Your task to perform on an android device: Search for Italian restaurants on Maps Image 0: 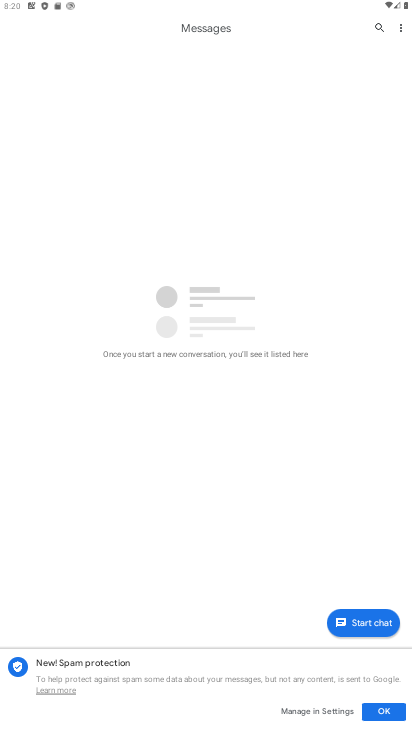
Step 0: press home button
Your task to perform on an android device: Search for Italian restaurants on Maps Image 1: 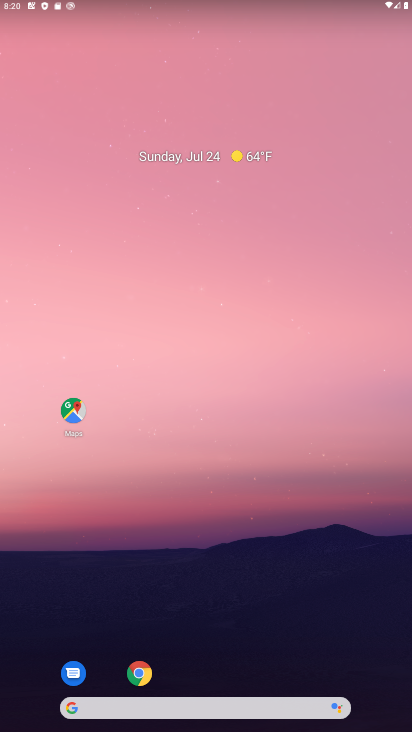
Step 1: click (74, 408)
Your task to perform on an android device: Search for Italian restaurants on Maps Image 2: 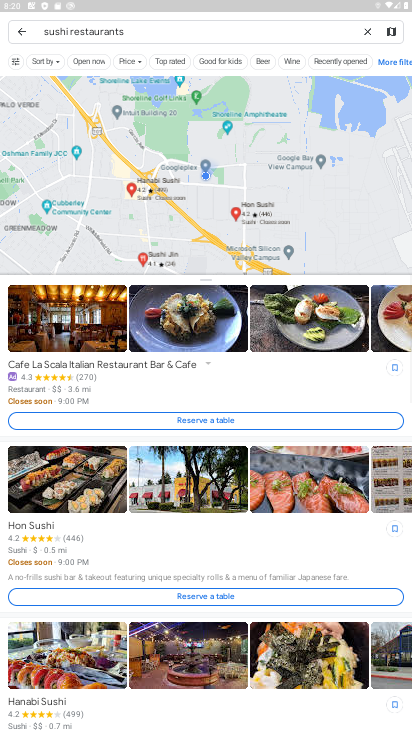
Step 2: click (372, 28)
Your task to perform on an android device: Search for Italian restaurants on Maps Image 3: 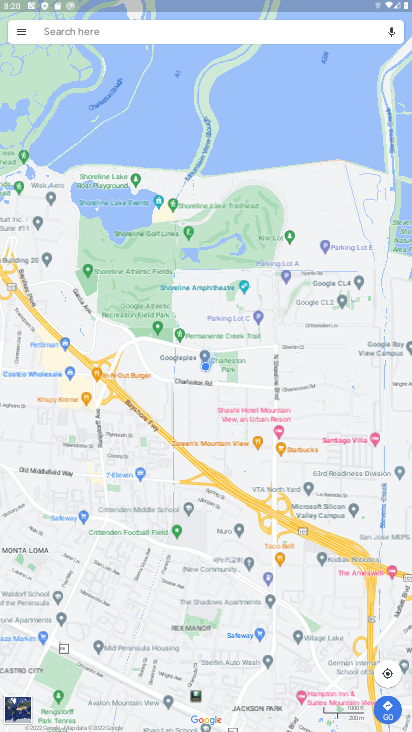
Step 3: click (199, 36)
Your task to perform on an android device: Search for Italian restaurants on Maps Image 4: 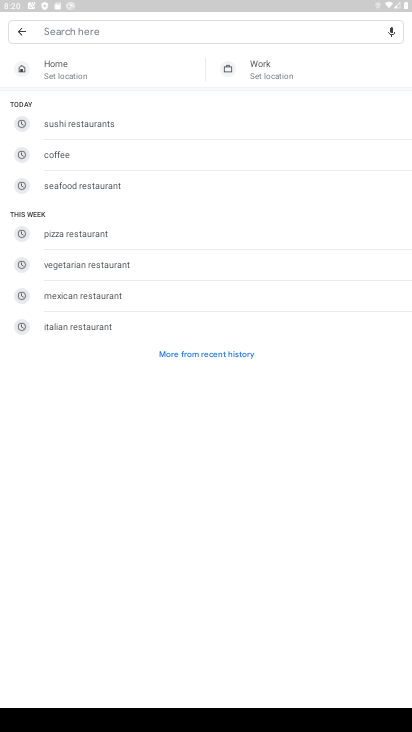
Step 4: click (118, 324)
Your task to perform on an android device: Search for Italian restaurants on Maps Image 5: 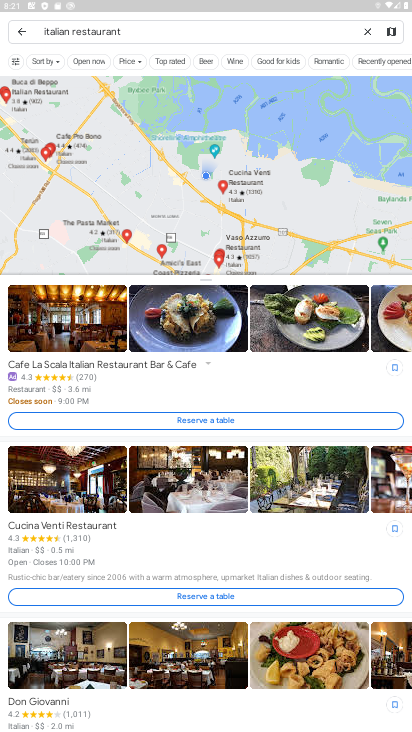
Step 5: task complete